Your task to perform on an android device: make emails show in primary in the gmail app Image 0: 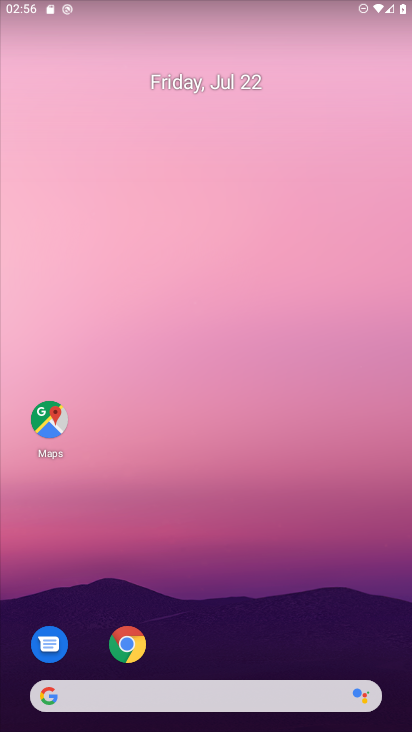
Step 0: drag from (170, 729) to (136, 7)
Your task to perform on an android device: make emails show in primary in the gmail app Image 1: 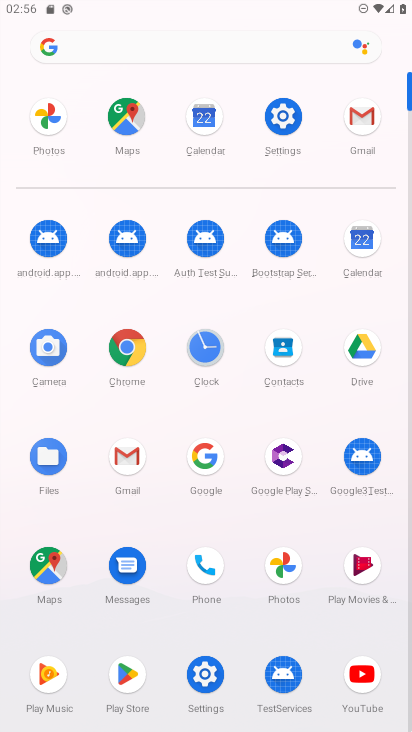
Step 1: click (351, 114)
Your task to perform on an android device: make emails show in primary in the gmail app Image 2: 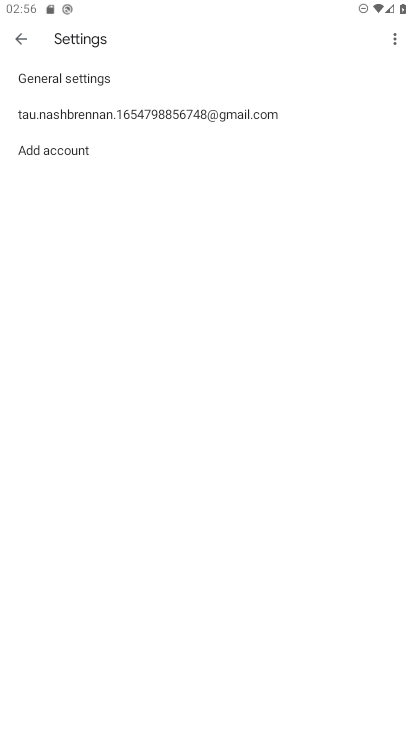
Step 2: click (214, 113)
Your task to perform on an android device: make emails show in primary in the gmail app Image 3: 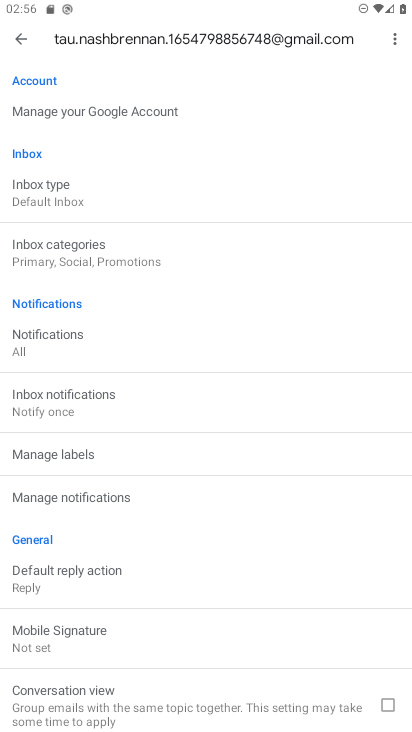
Step 3: click (103, 259)
Your task to perform on an android device: make emails show in primary in the gmail app Image 4: 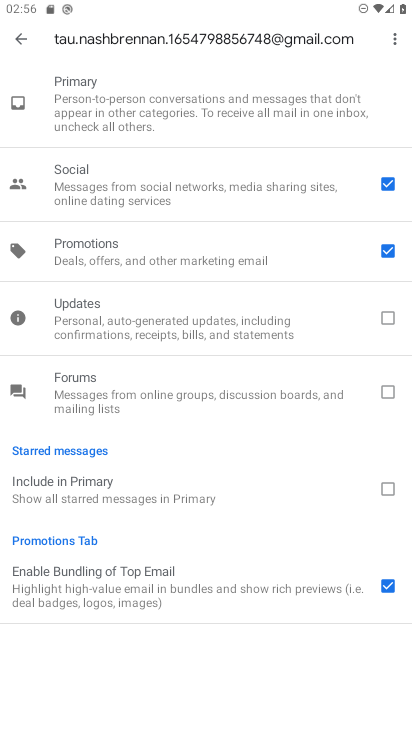
Step 4: click (388, 252)
Your task to perform on an android device: make emails show in primary in the gmail app Image 5: 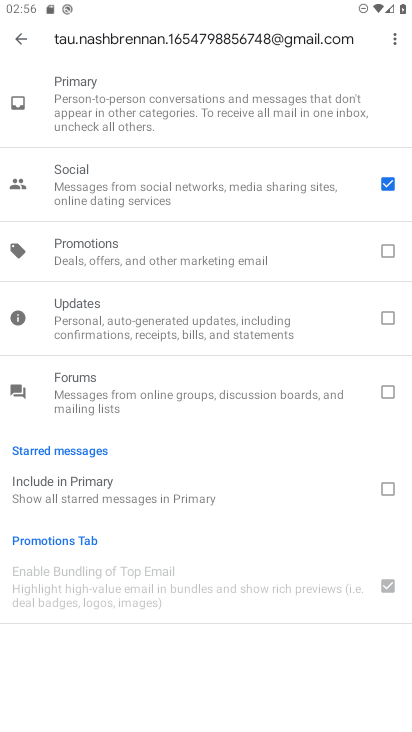
Step 5: click (387, 182)
Your task to perform on an android device: make emails show in primary in the gmail app Image 6: 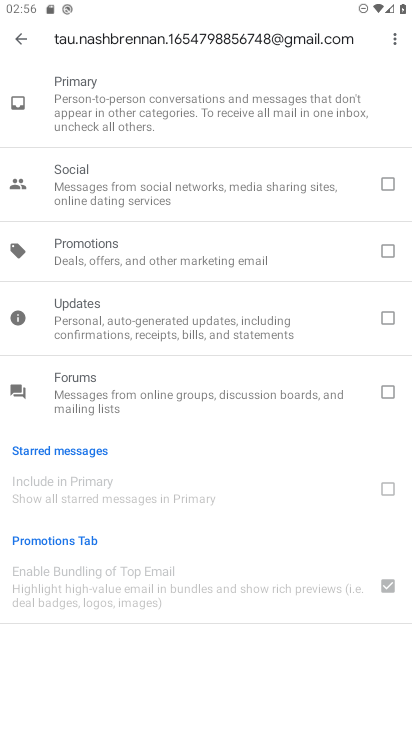
Step 6: task complete